Your task to perform on an android device: Go to Yahoo.com Image 0: 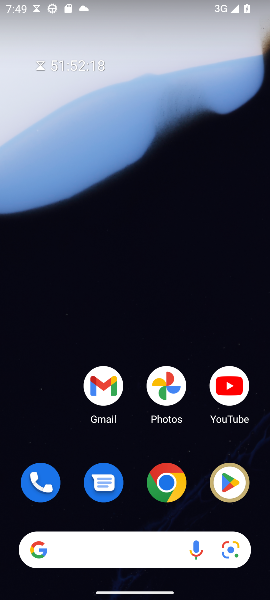
Step 0: drag from (137, 440) to (222, 0)
Your task to perform on an android device: Go to Yahoo.com Image 1: 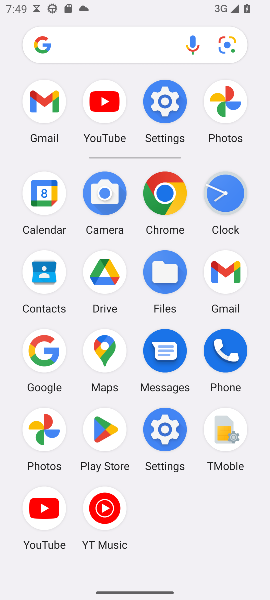
Step 1: click (159, 209)
Your task to perform on an android device: Go to Yahoo.com Image 2: 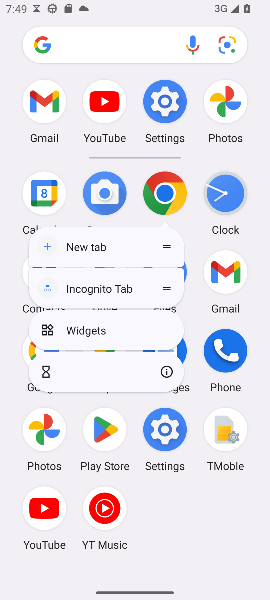
Step 2: click (158, 207)
Your task to perform on an android device: Go to Yahoo.com Image 3: 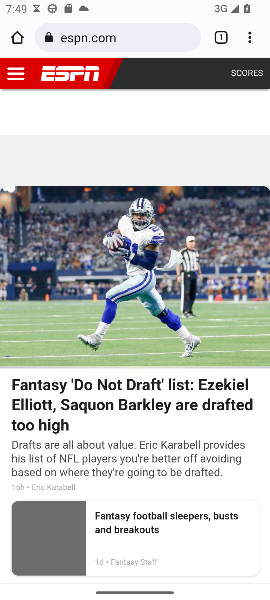
Step 3: click (155, 31)
Your task to perform on an android device: Go to Yahoo.com Image 4: 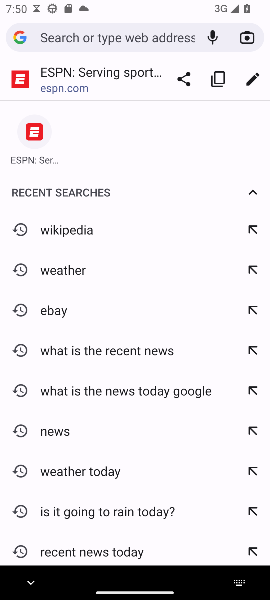
Step 4: type "Yahoo.com"
Your task to perform on an android device: Go to Yahoo.com Image 5: 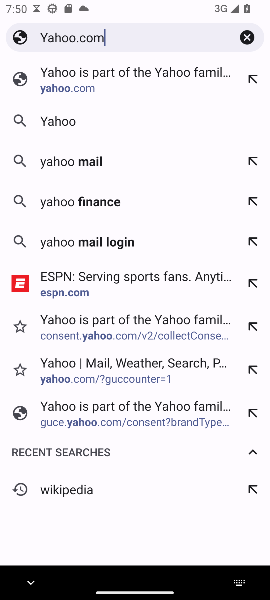
Step 5: press enter
Your task to perform on an android device: Go to Yahoo.com Image 6: 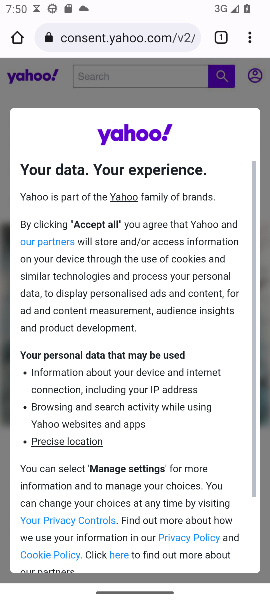
Step 6: task complete